Your task to perform on an android device: Open Chrome and go to settings Image 0: 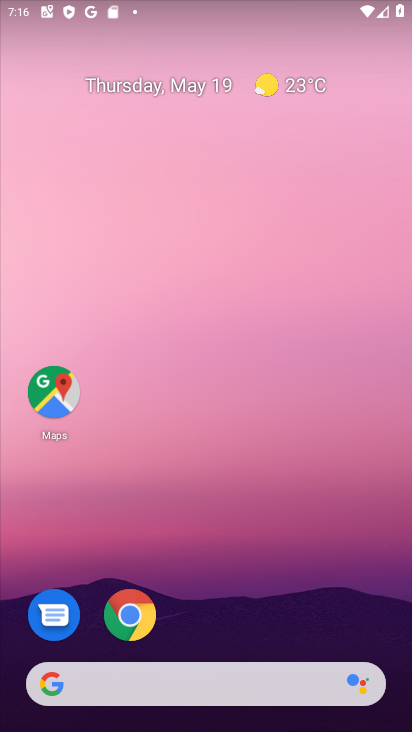
Step 0: drag from (320, 603) to (286, 43)
Your task to perform on an android device: Open Chrome and go to settings Image 1: 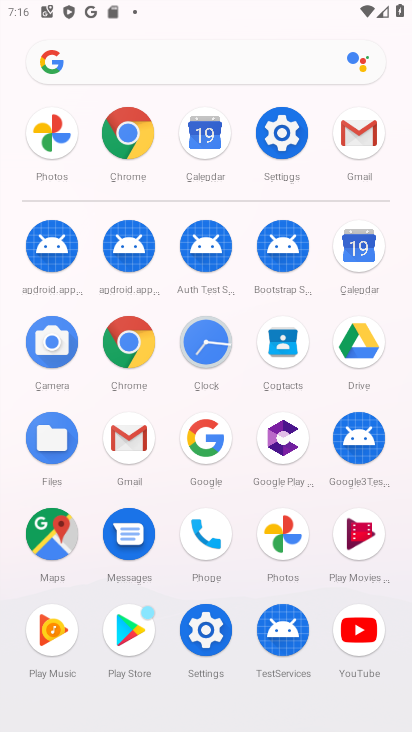
Step 1: click (121, 145)
Your task to perform on an android device: Open Chrome and go to settings Image 2: 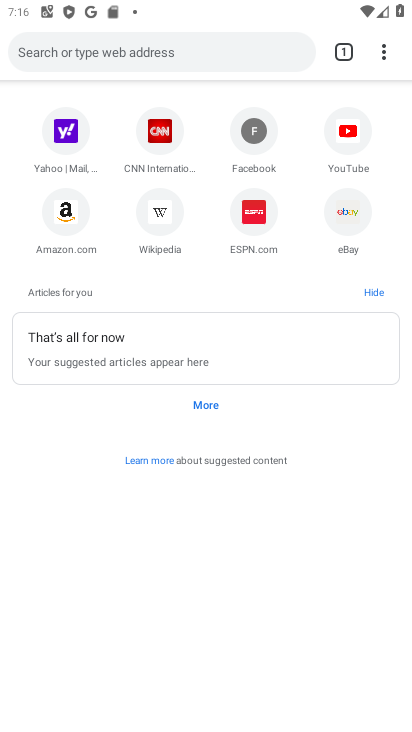
Step 2: click (385, 54)
Your task to perform on an android device: Open Chrome and go to settings Image 3: 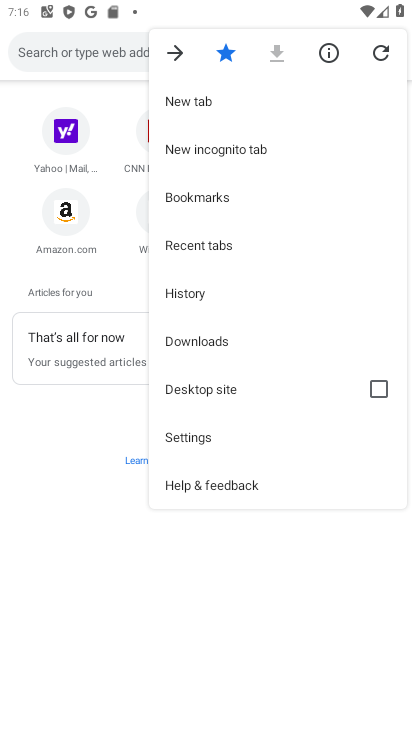
Step 3: click (214, 436)
Your task to perform on an android device: Open Chrome and go to settings Image 4: 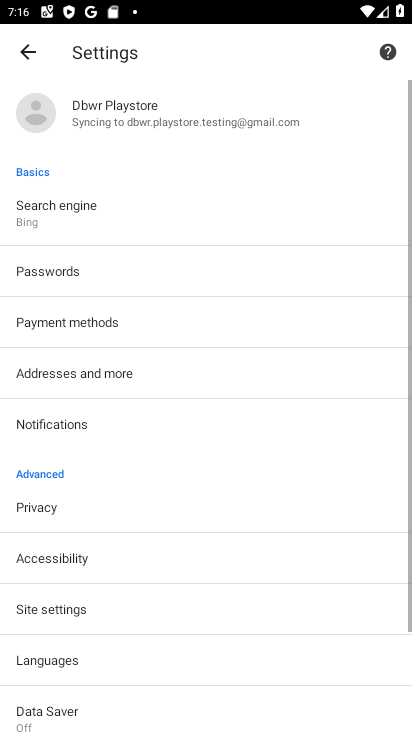
Step 4: task complete